Your task to perform on an android device: open device folders in google photos Image 0: 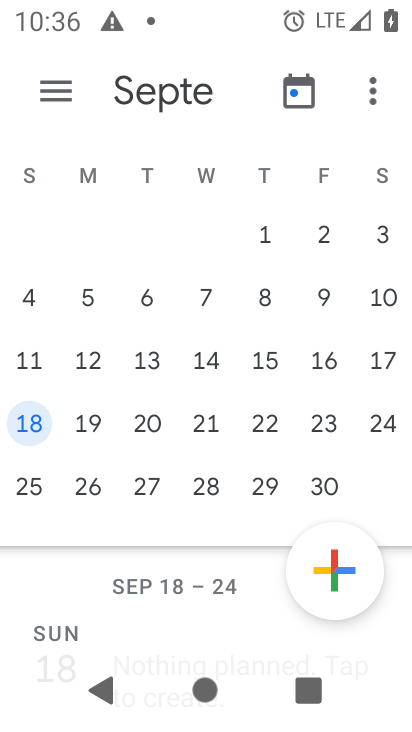
Step 0: press home button
Your task to perform on an android device: open device folders in google photos Image 1: 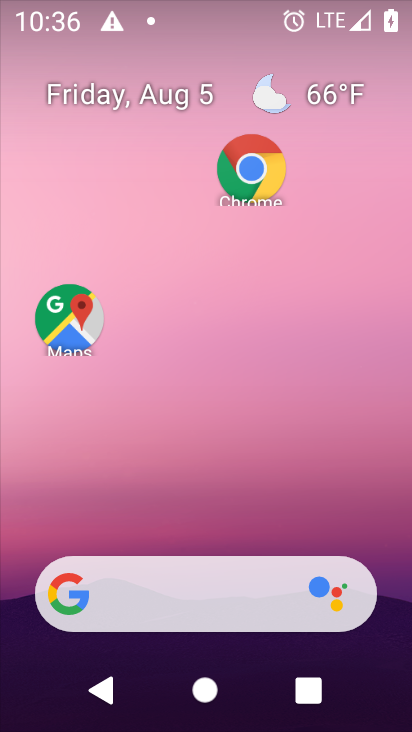
Step 1: drag from (187, 498) to (154, 151)
Your task to perform on an android device: open device folders in google photos Image 2: 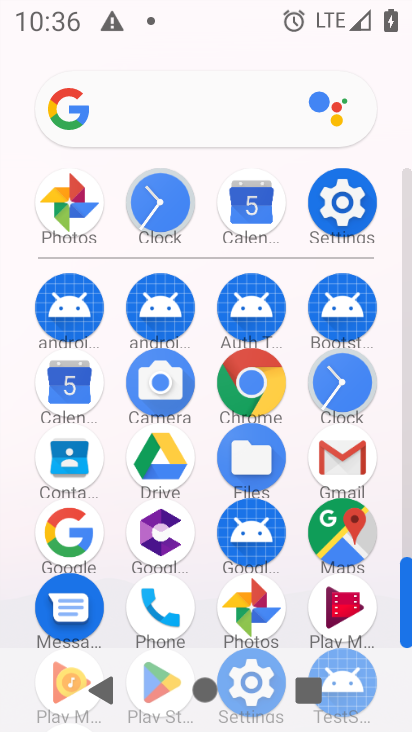
Step 2: click (262, 601)
Your task to perform on an android device: open device folders in google photos Image 3: 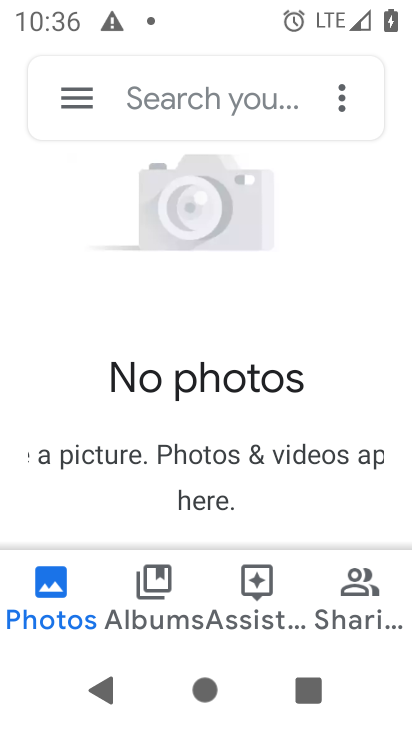
Step 3: click (77, 105)
Your task to perform on an android device: open device folders in google photos Image 4: 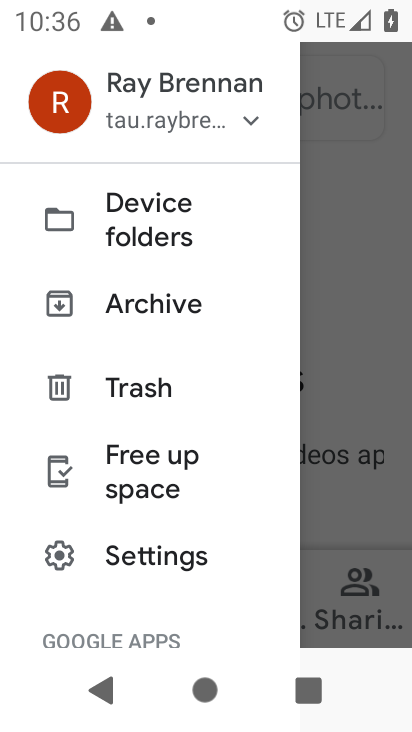
Step 4: click (117, 207)
Your task to perform on an android device: open device folders in google photos Image 5: 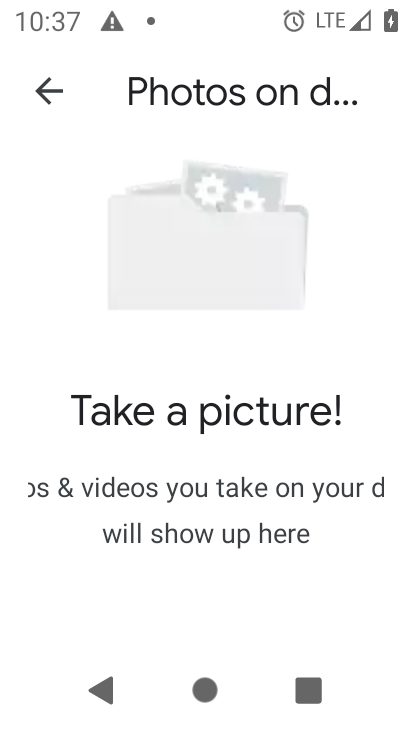
Step 5: task complete